Your task to perform on an android device: open app "Duolingo: language lessons" (install if not already installed) and go to login screen Image 0: 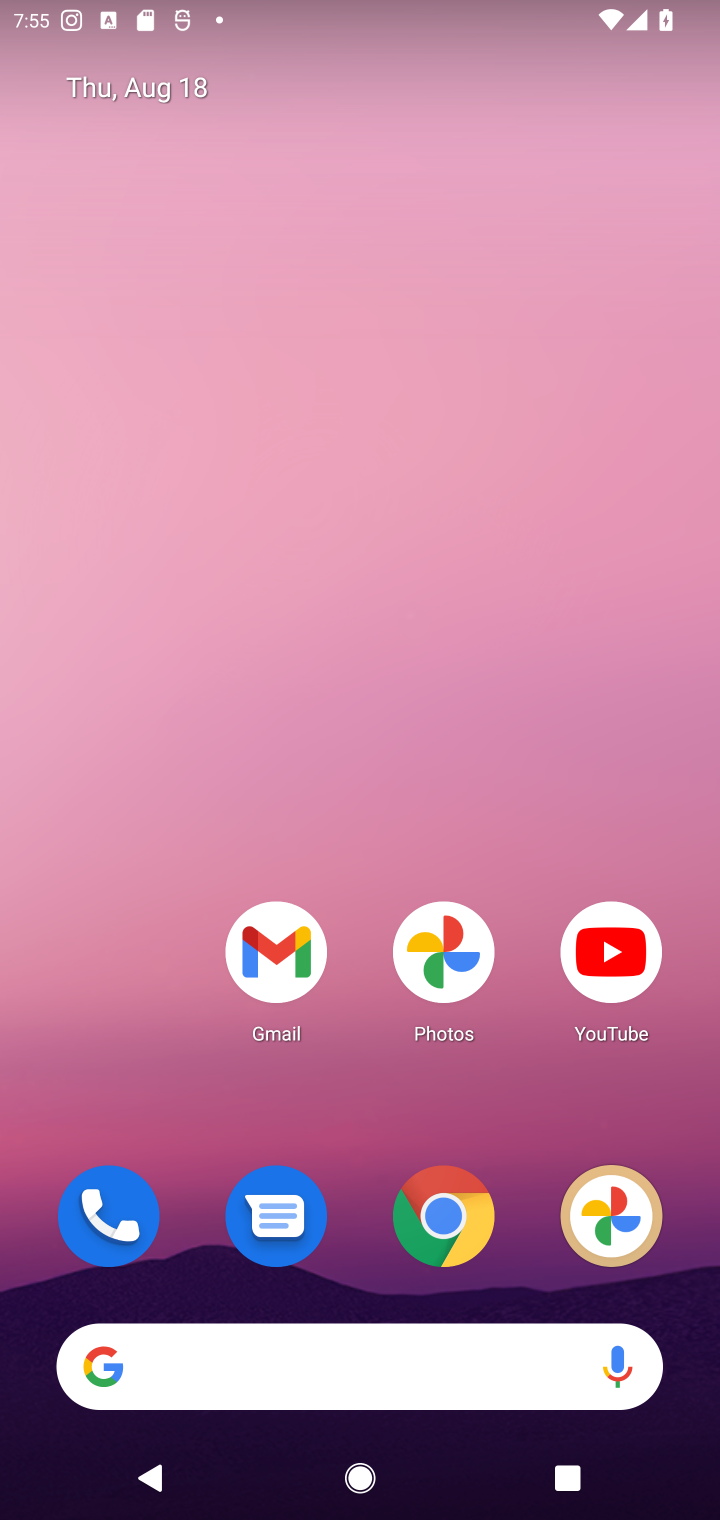
Step 0: drag from (358, 1034) to (444, 181)
Your task to perform on an android device: open app "Duolingo: language lessons" (install if not already installed) and go to login screen Image 1: 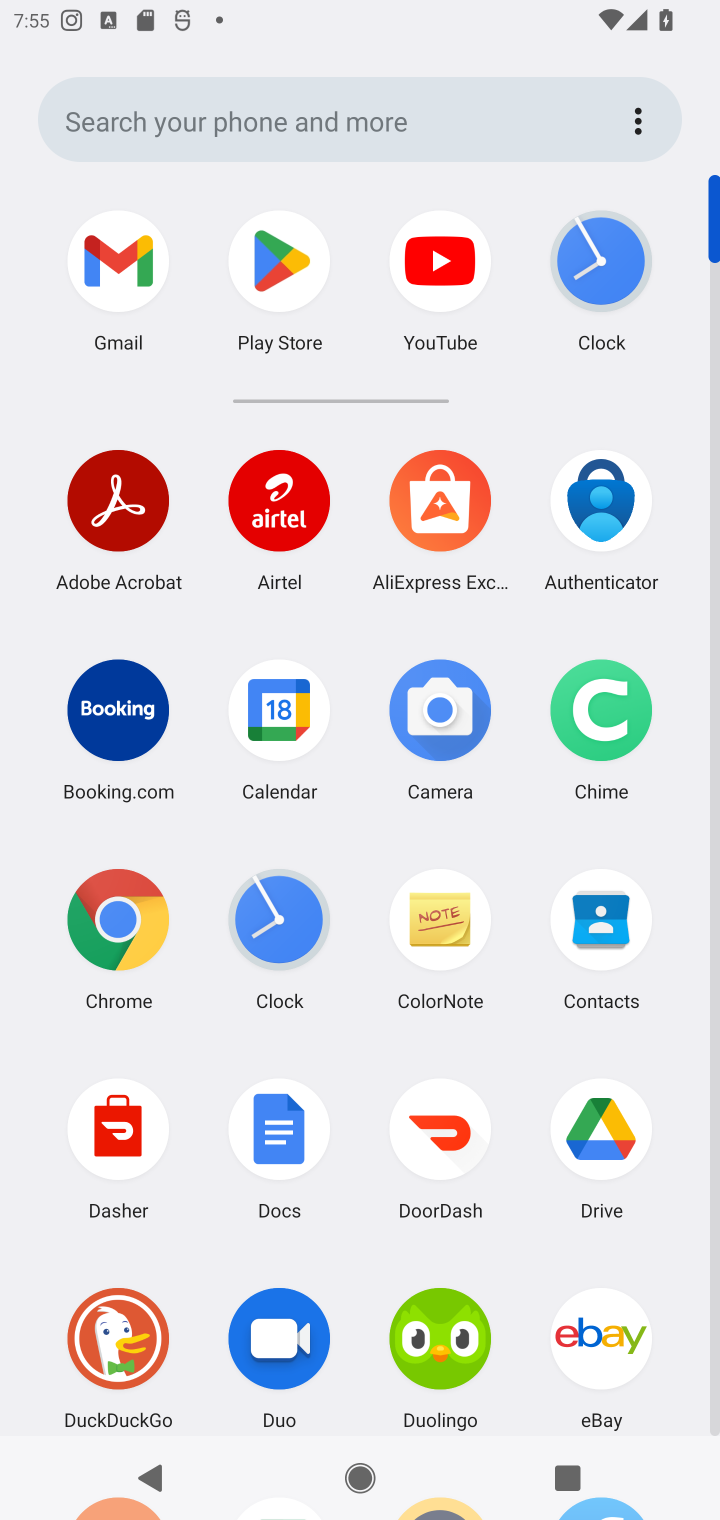
Step 1: click (288, 240)
Your task to perform on an android device: open app "Duolingo: language lessons" (install if not already installed) and go to login screen Image 2: 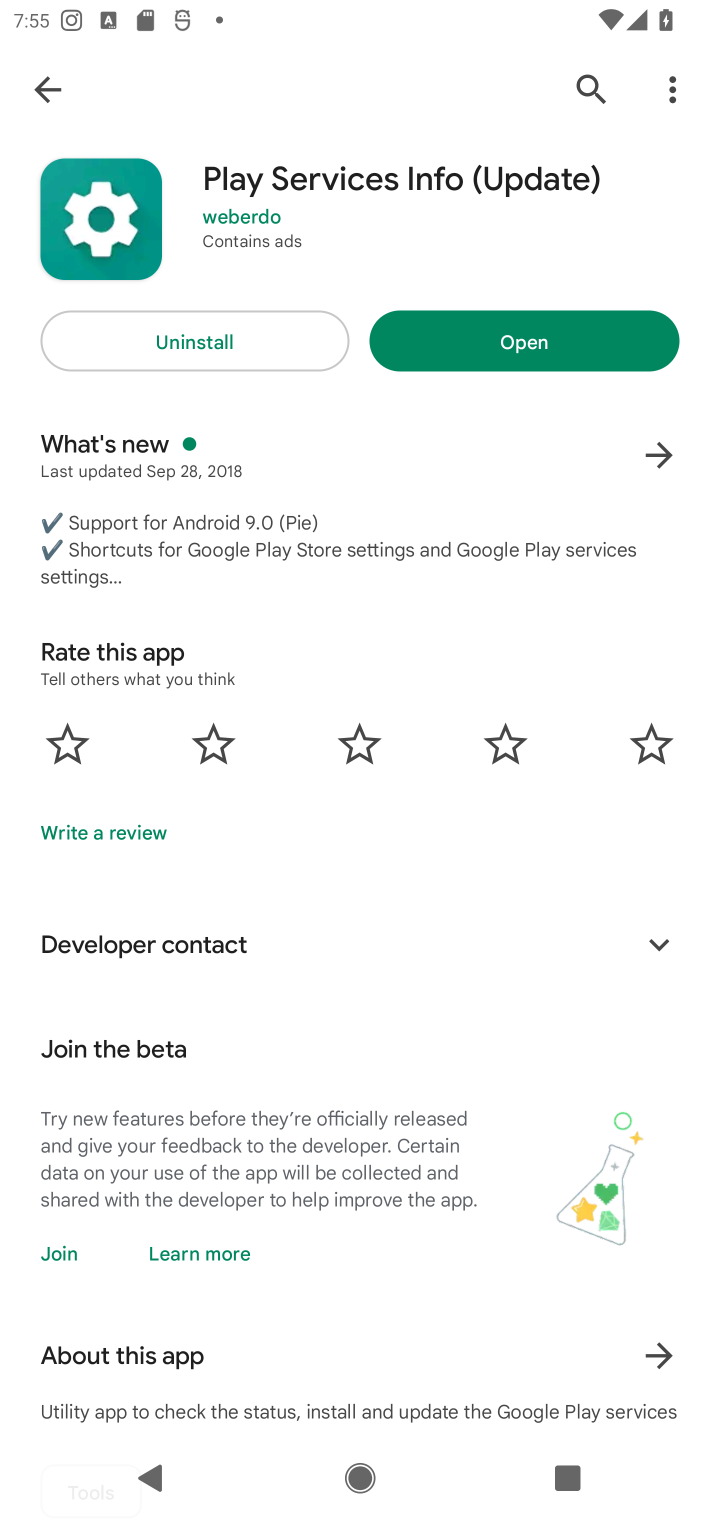
Step 2: click (587, 93)
Your task to perform on an android device: open app "Duolingo: language lessons" (install if not already installed) and go to login screen Image 3: 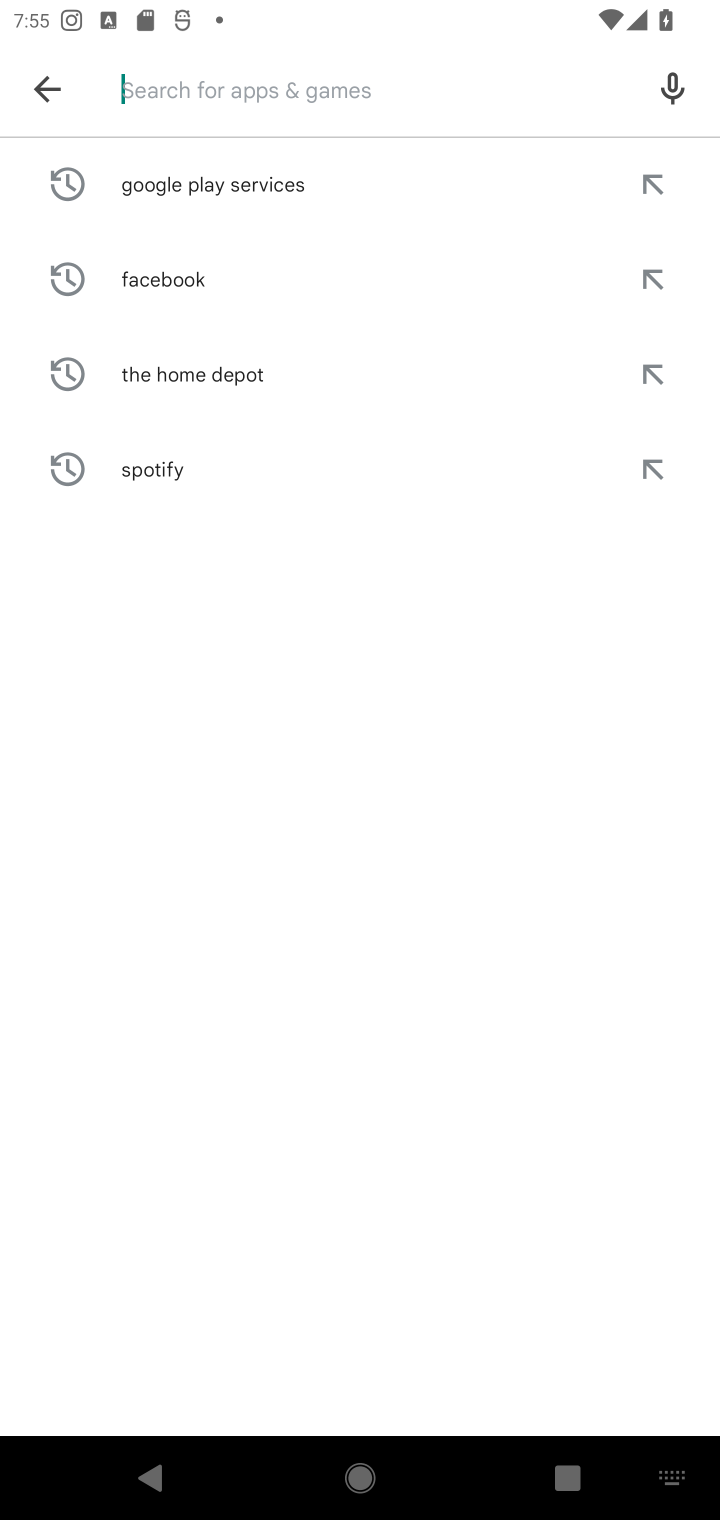
Step 3: type "Duolingo: language lessons"
Your task to perform on an android device: open app "Duolingo: language lessons" (install if not already installed) and go to login screen Image 4: 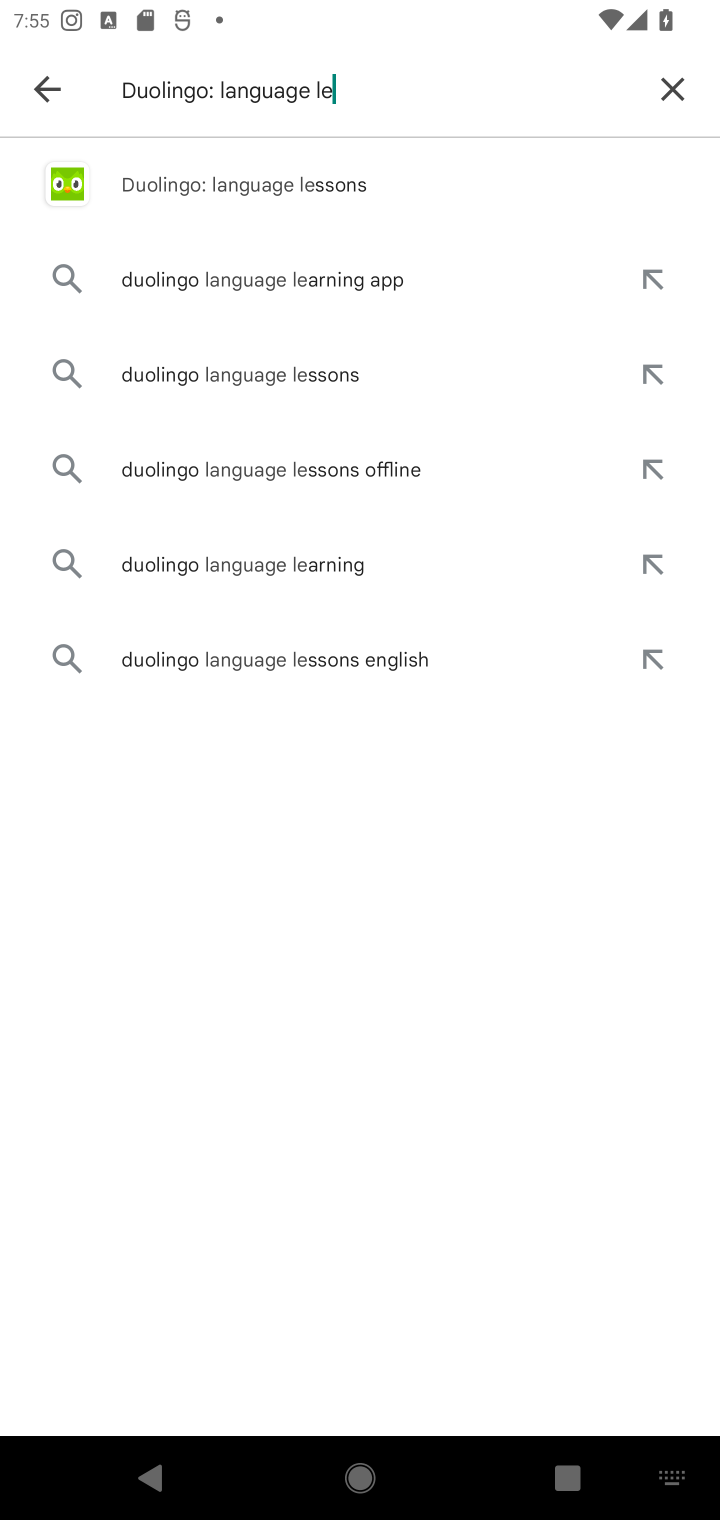
Step 4: type ""
Your task to perform on an android device: open app "Duolingo: language lessons" (install if not already installed) and go to login screen Image 5: 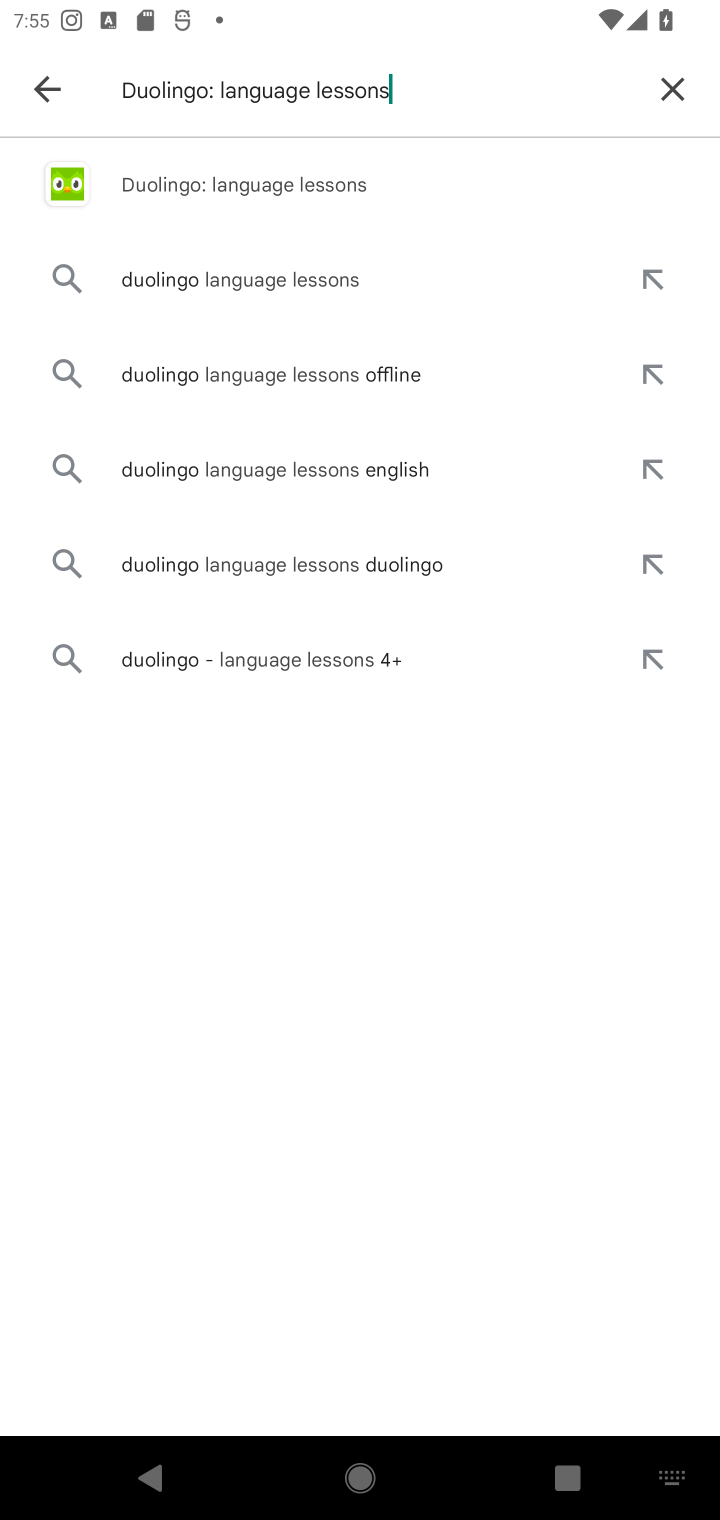
Step 5: click (288, 199)
Your task to perform on an android device: open app "Duolingo: language lessons" (install if not already installed) and go to login screen Image 6: 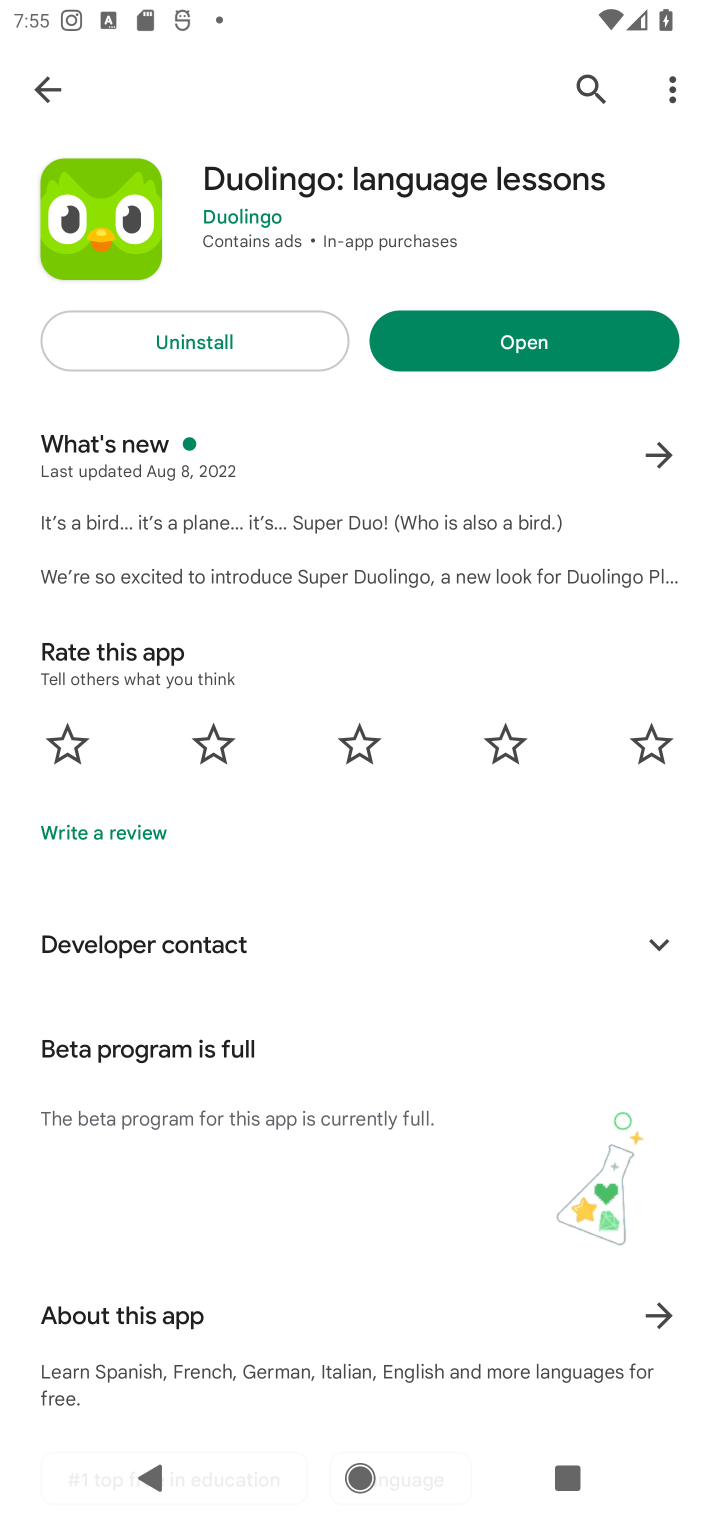
Step 6: click (572, 328)
Your task to perform on an android device: open app "Duolingo: language lessons" (install if not already installed) and go to login screen Image 7: 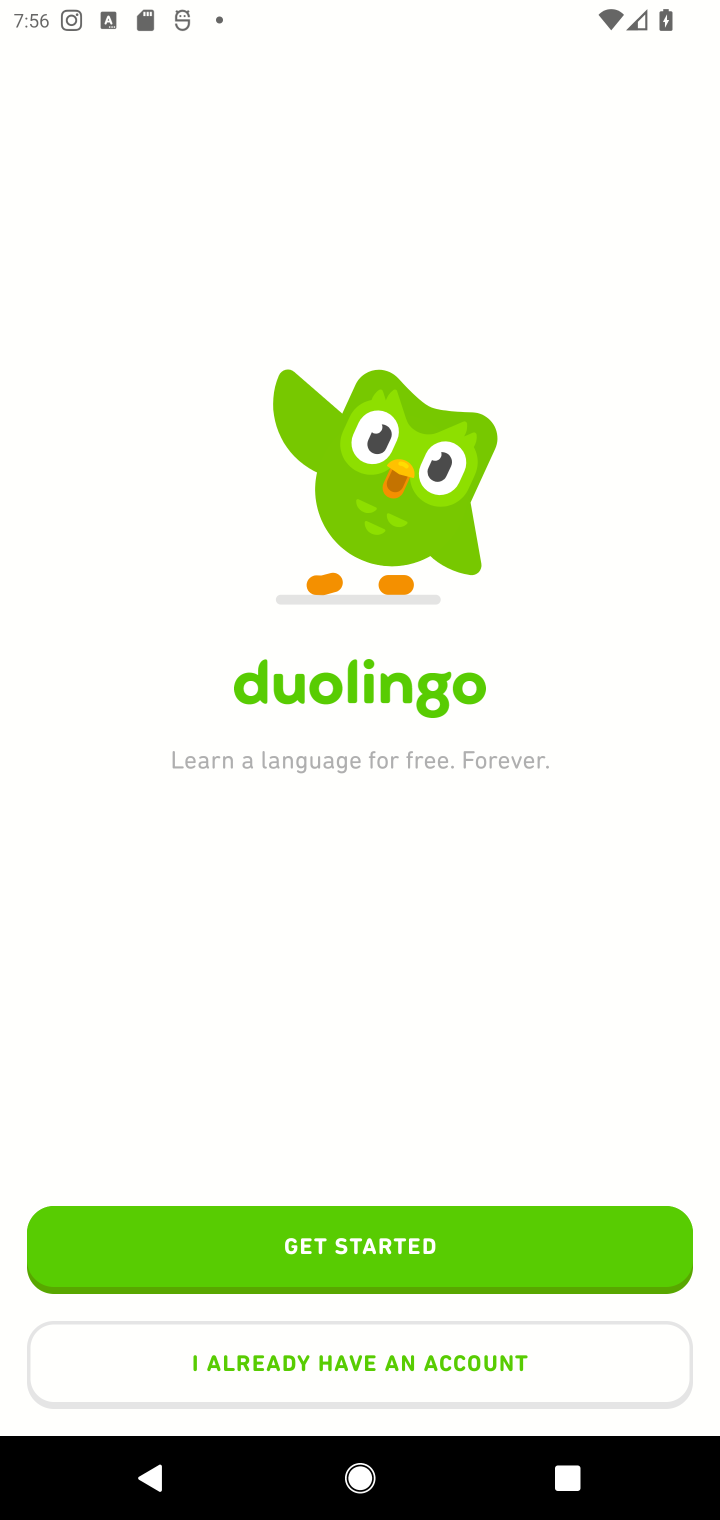
Step 7: task complete